Your task to perform on an android device: check battery use Image 0: 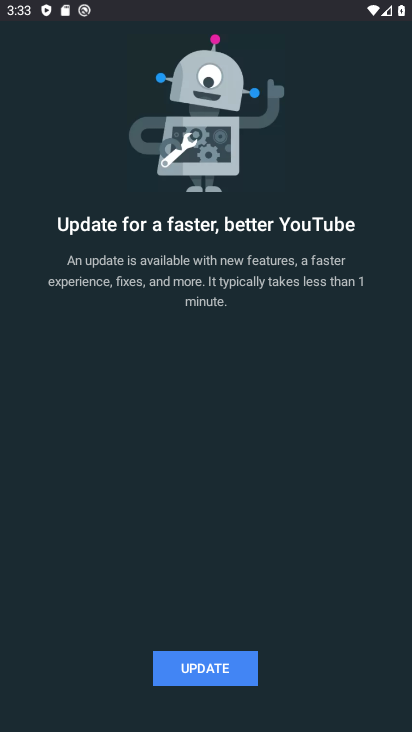
Step 0: press back button
Your task to perform on an android device: check battery use Image 1: 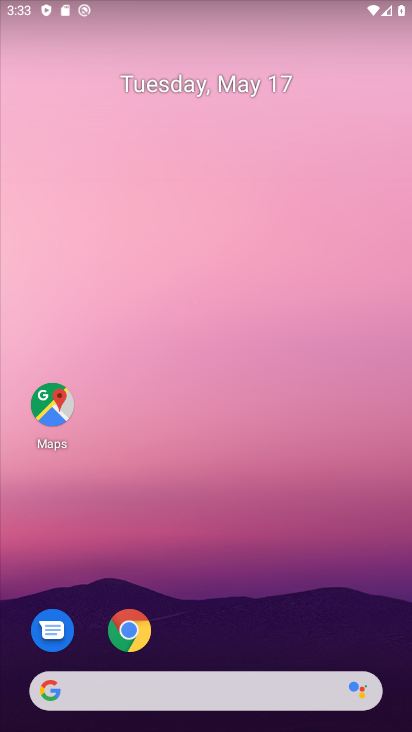
Step 1: drag from (185, 656) to (270, 191)
Your task to perform on an android device: check battery use Image 2: 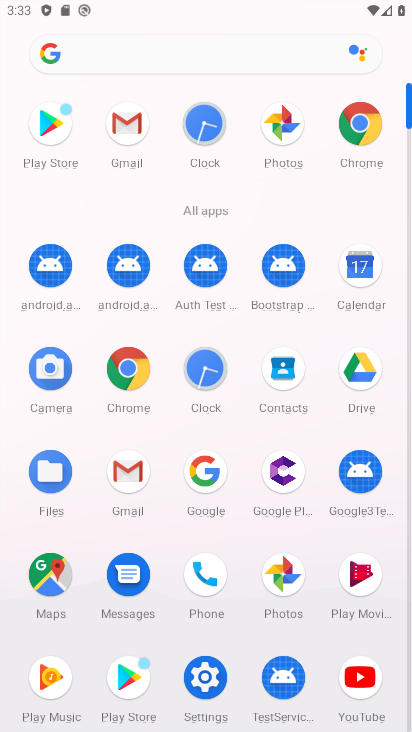
Step 2: drag from (241, 631) to (282, 472)
Your task to perform on an android device: check battery use Image 3: 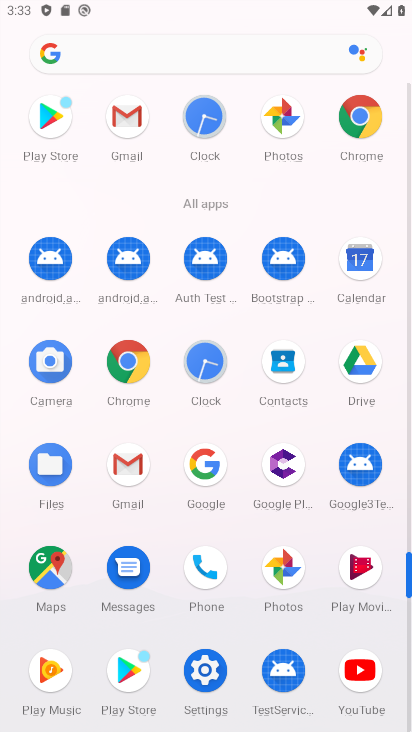
Step 3: click (198, 675)
Your task to perform on an android device: check battery use Image 4: 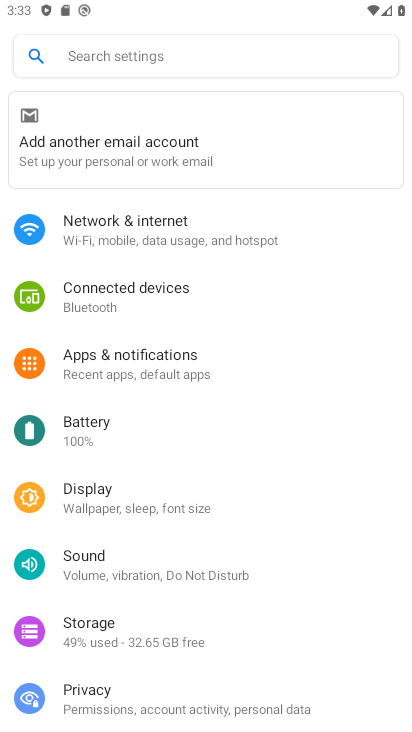
Step 4: drag from (217, 496) to (325, 283)
Your task to perform on an android device: check battery use Image 5: 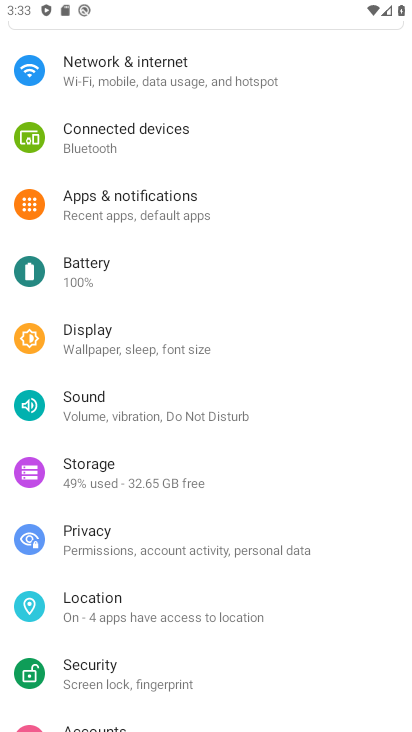
Step 5: click (142, 274)
Your task to perform on an android device: check battery use Image 6: 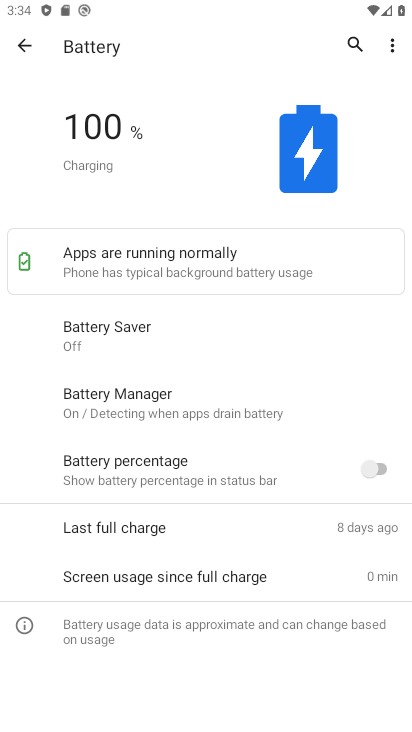
Step 6: click (393, 53)
Your task to perform on an android device: check battery use Image 7: 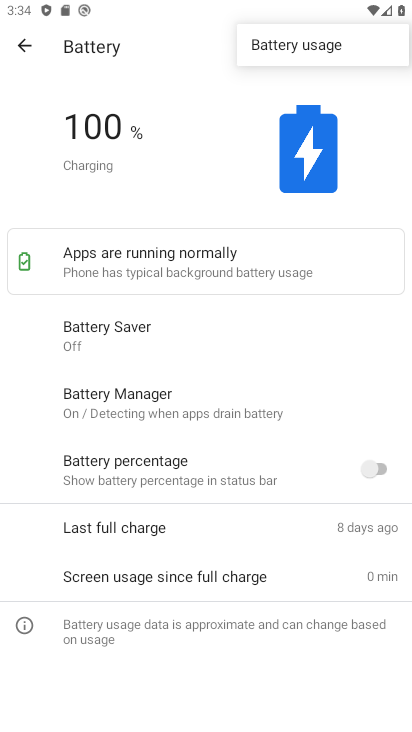
Step 7: click (386, 58)
Your task to perform on an android device: check battery use Image 8: 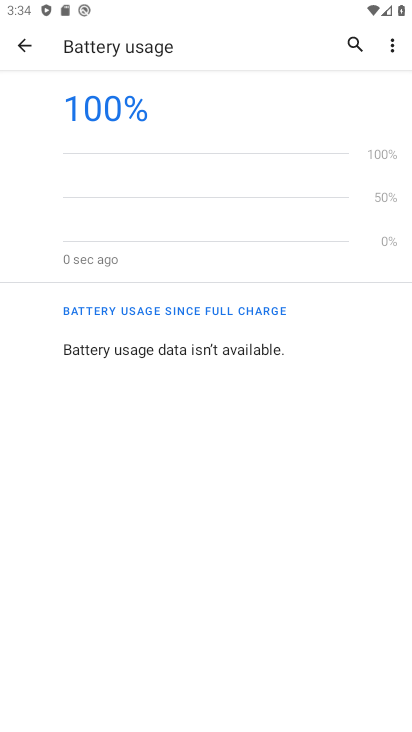
Step 8: task complete